Your task to perform on an android device: Open the calendar app, open the side menu, and click the "Day" option Image 0: 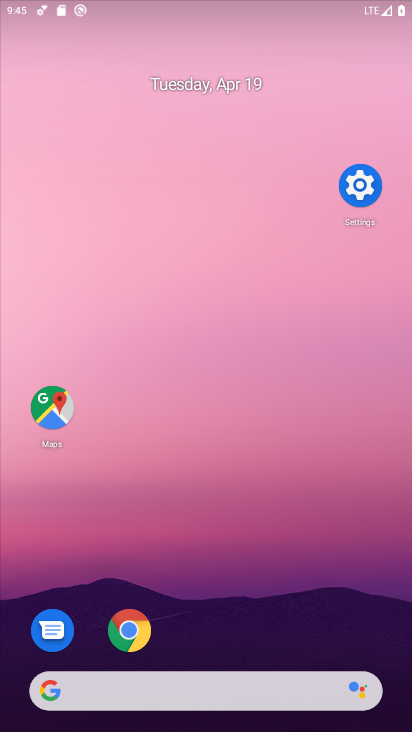
Step 0: drag from (300, 598) to (231, 106)
Your task to perform on an android device: Open the calendar app, open the side menu, and click the "Day" option Image 1: 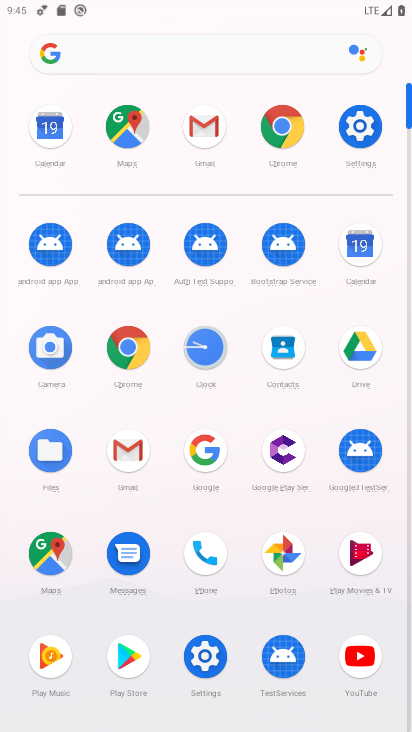
Step 1: click (356, 247)
Your task to perform on an android device: Open the calendar app, open the side menu, and click the "Day" option Image 2: 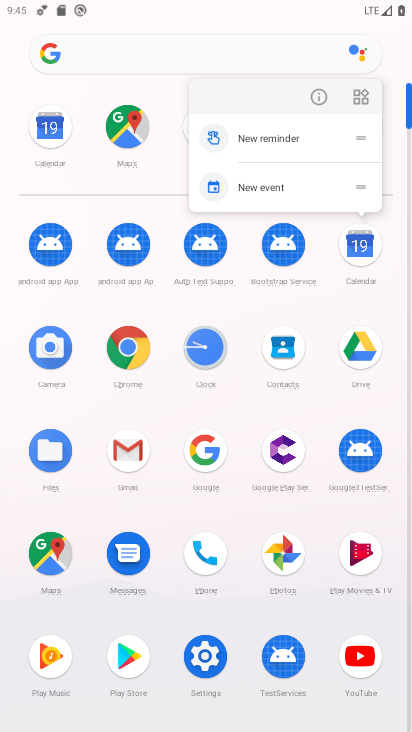
Step 2: click (363, 253)
Your task to perform on an android device: Open the calendar app, open the side menu, and click the "Day" option Image 3: 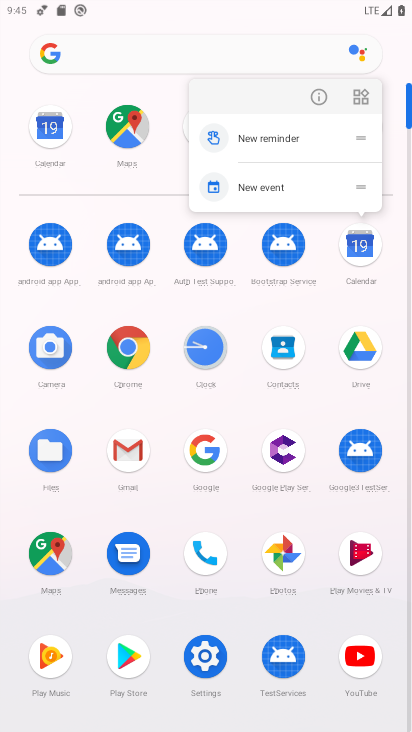
Step 3: click (363, 258)
Your task to perform on an android device: Open the calendar app, open the side menu, and click the "Day" option Image 4: 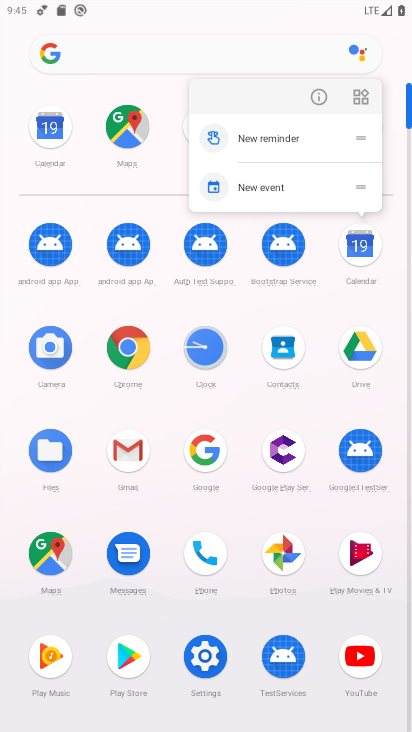
Step 4: click (363, 258)
Your task to perform on an android device: Open the calendar app, open the side menu, and click the "Day" option Image 5: 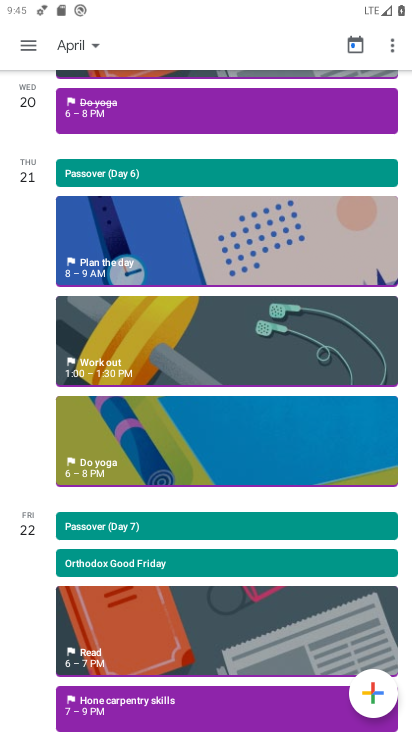
Step 5: click (38, 48)
Your task to perform on an android device: Open the calendar app, open the side menu, and click the "Day" option Image 6: 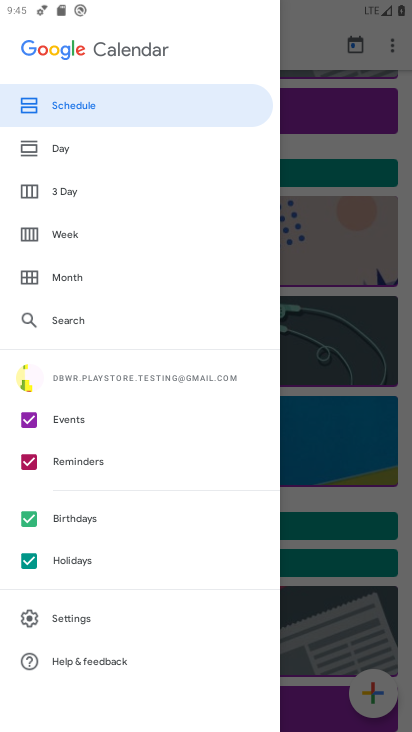
Step 6: click (104, 164)
Your task to perform on an android device: Open the calendar app, open the side menu, and click the "Day" option Image 7: 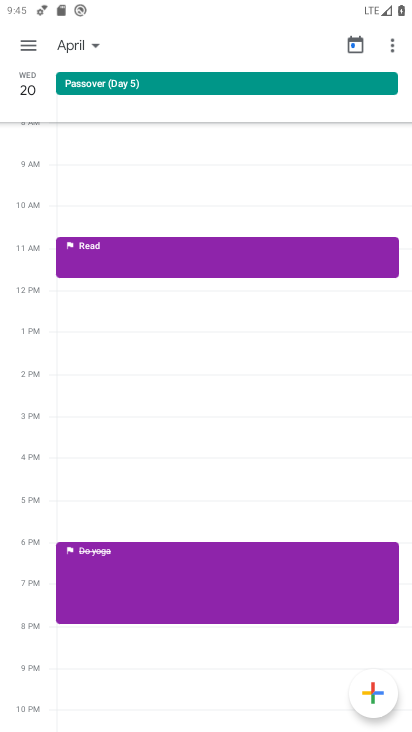
Step 7: task complete